Your task to perform on an android device: Open notification settings Image 0: 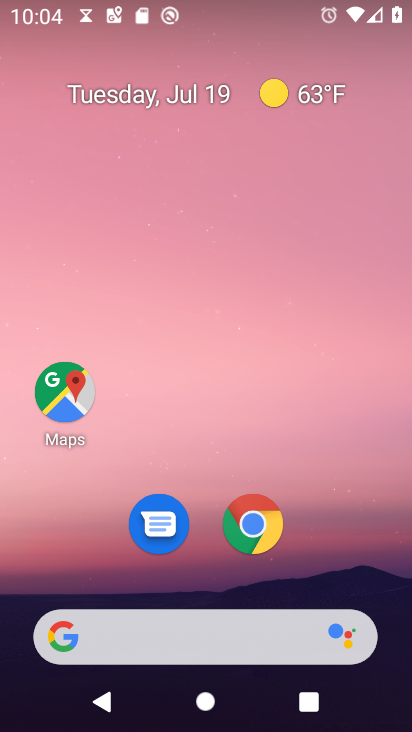
Step 0: press home button
Your task to perform on an android device: Open notification settings Image 1: 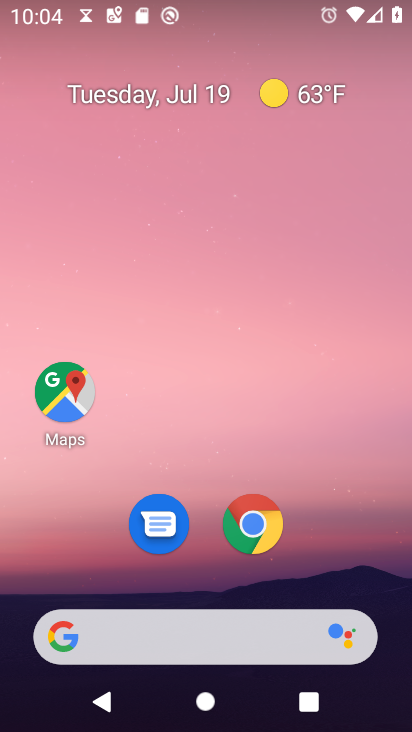
Step 1: drag from (181, 635) to (285, 20)
Your task to perform on an android device: Open notification settings Image 2: 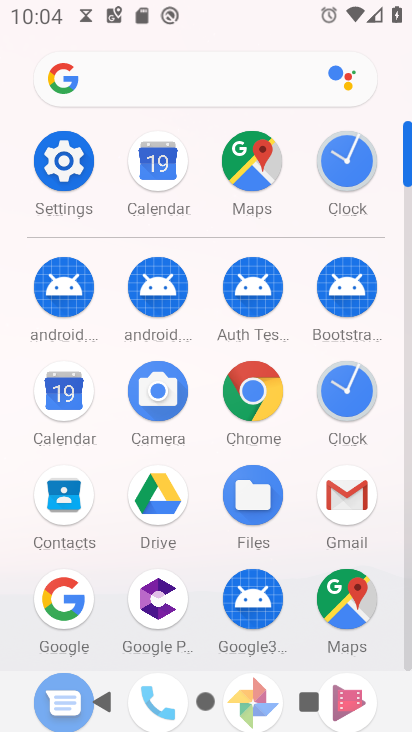
Step 2: click (72, 167)
Your task to perform on an android device: Open notification settings Image 3: 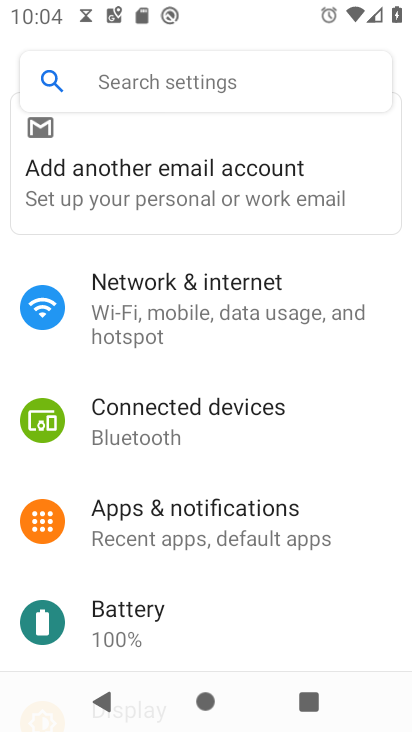
Step 3: click (227, 521)
Your task to perform on an android device: Open notification settings Image 4: 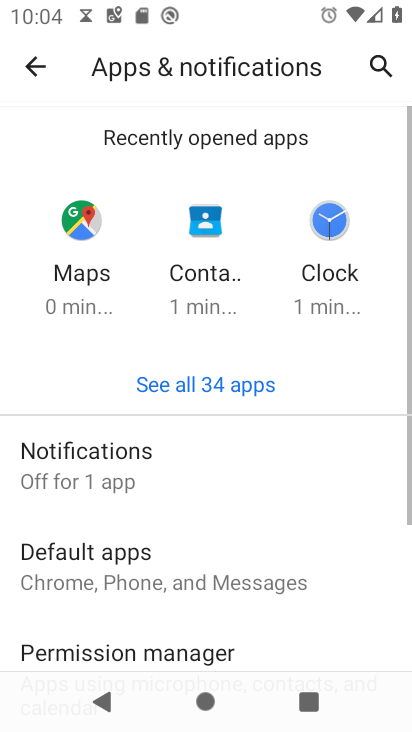
Step 4: click (72, 461)
Your task to perform on an android device: Open notification settings Image 5: 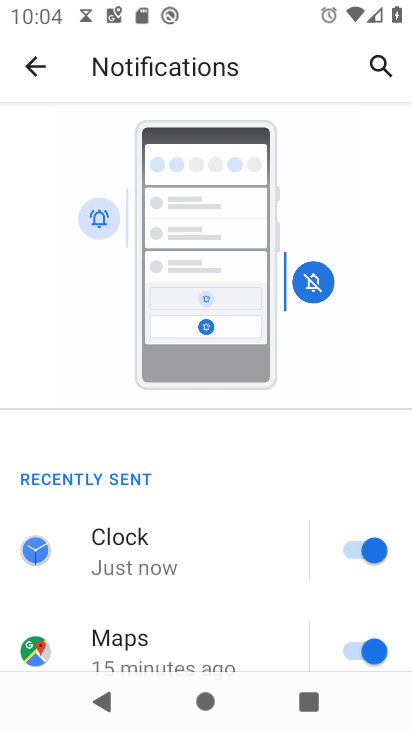
Step 5: task complete